Your task to perform on an android device: stop showing notifications on the lock screen Image 0: 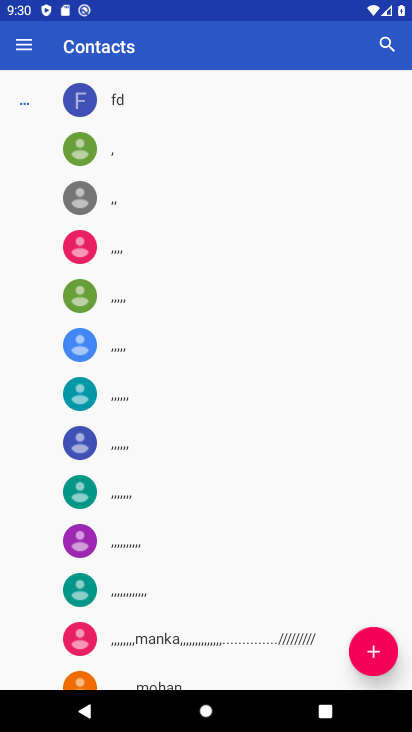
Step 0: press home button
Your task to perform on an android device: stop showing notifications on the lock screen Image 1: 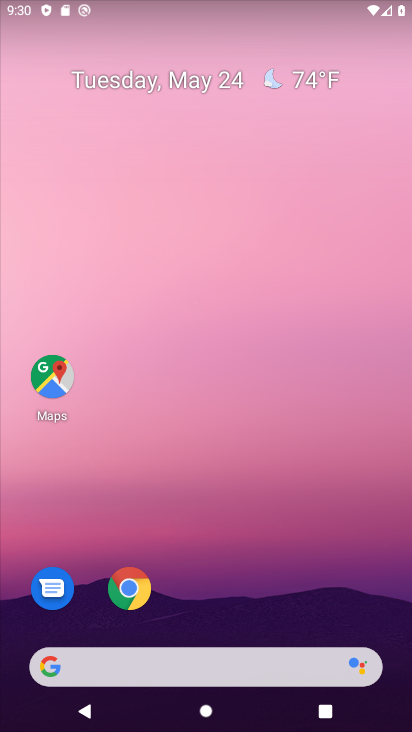
Step 1: drag from (177, 630) to (234, 140)
Your task to perform on an android device: stop showing notifications on the lock screen Image 2: 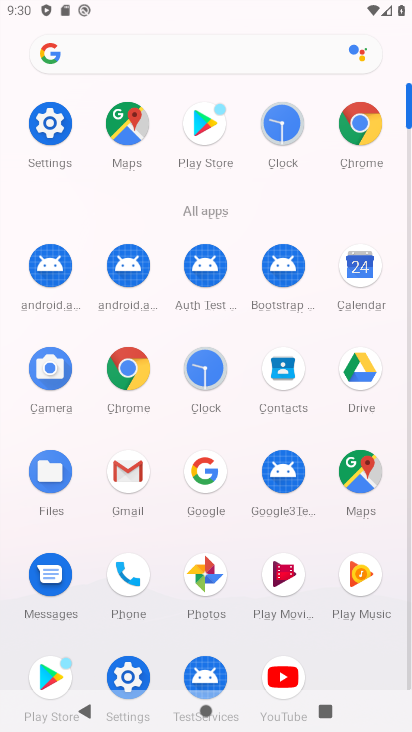
Step 2: click (58, 130)
Your task to perform on an android device: stop showing notifications on the lock screen Image 3: 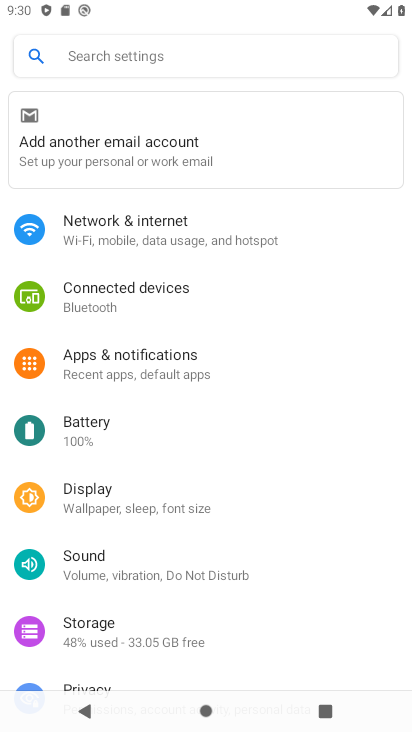
Step 3: click (78, 362)
Your task to perform on an android device: stop showing notifications on the lock screen Image 4: 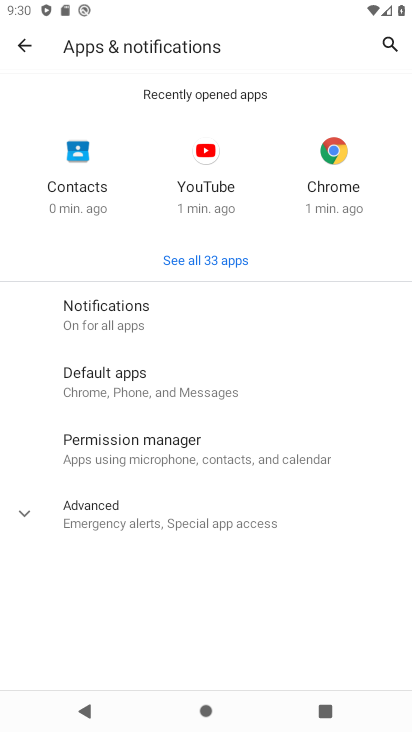
Step 4: click (78, 326)
Your task to perform on an android device: stop showing notifications on the lock screen Image 5: 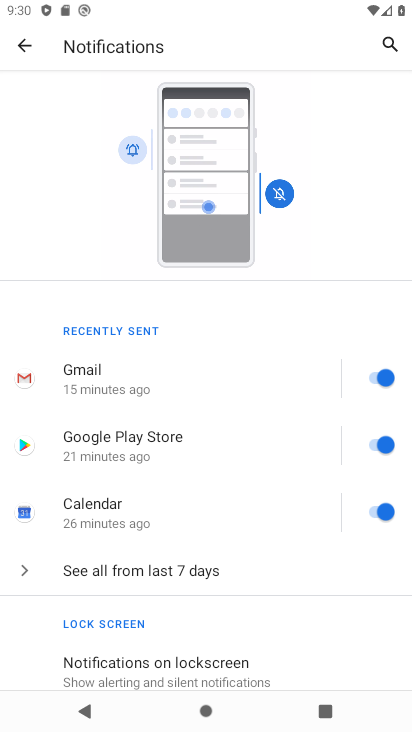
Step 5: click (179, 664)
Your task to perform on an android device: stop showing notifications on the lock screen Image 6: 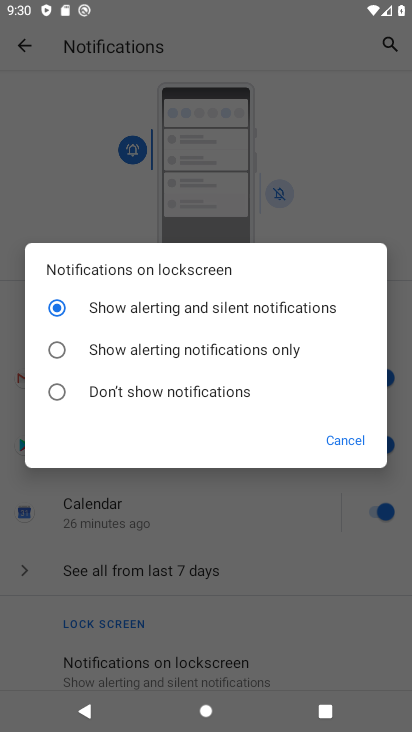
Step 6: click (120, 404)
Your task to perform on an android device: stop showing notifications on the lock screen Image 7: 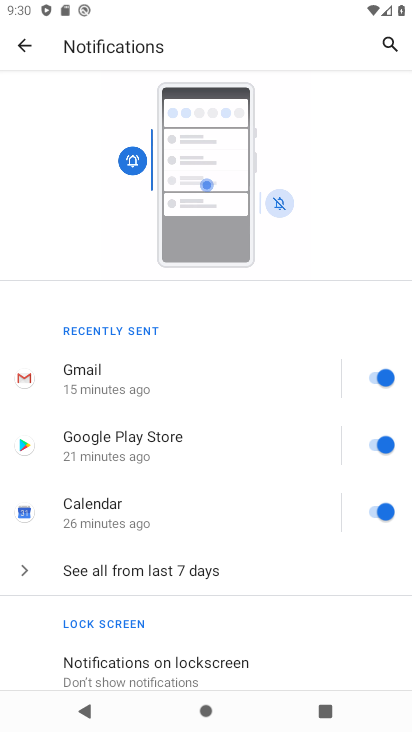
Step 7: task complete